Your task to perform on an android device: Open the Play Movies app and select the watchlist tab. Image 0: 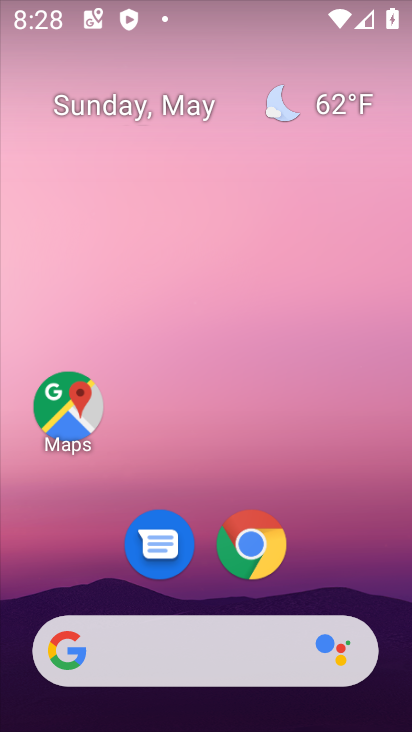
Step 0: drag from (312, 589) to (276, 210)
Your task to perform on an android device: Open the Play Movies app and select the watchlist tab. Image 1: 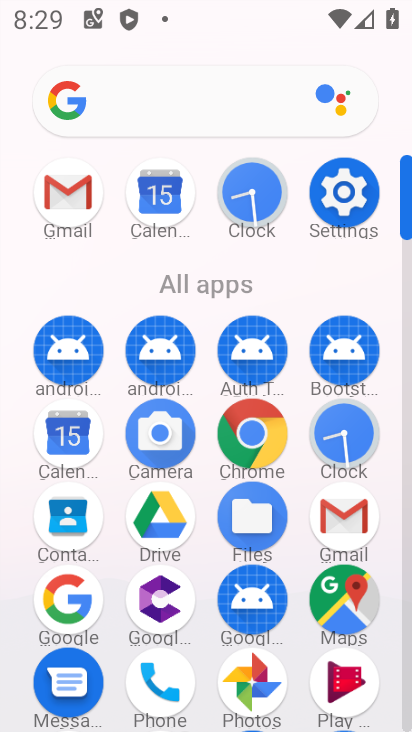
Step 1: click (342, 683)
Your task to perform on an android device: Open the Play Movies app and select the watchlist tab. Image 2: 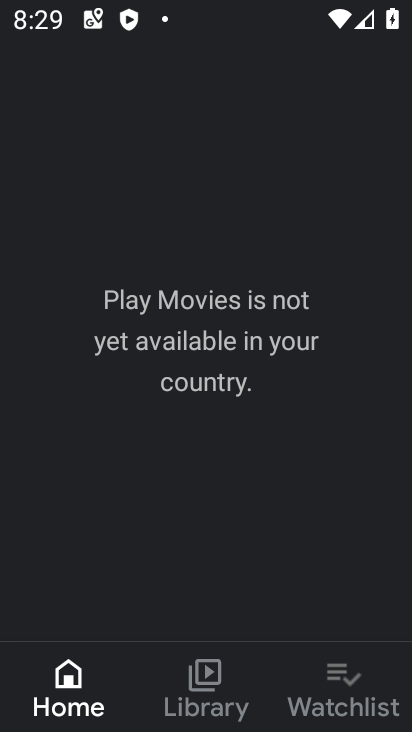
Step 2: click (362, 710)
Your task to perform on an android device: Open the Play Movies app and select the watchlist tab. Image 3: 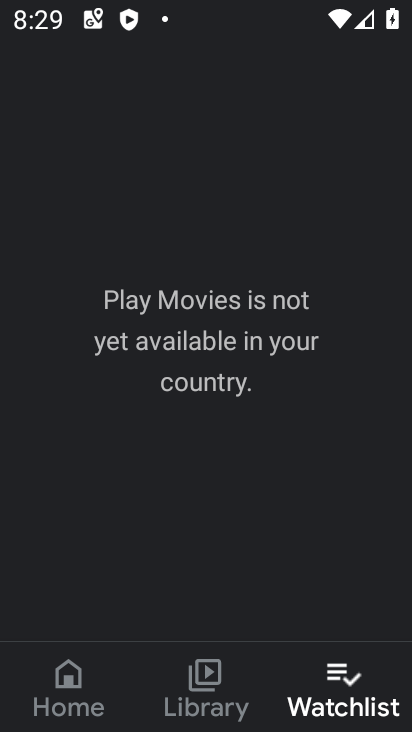
Step 3: task complete